Your task to perform on an android device: turn vacation reply on in the gmail app Image 0: 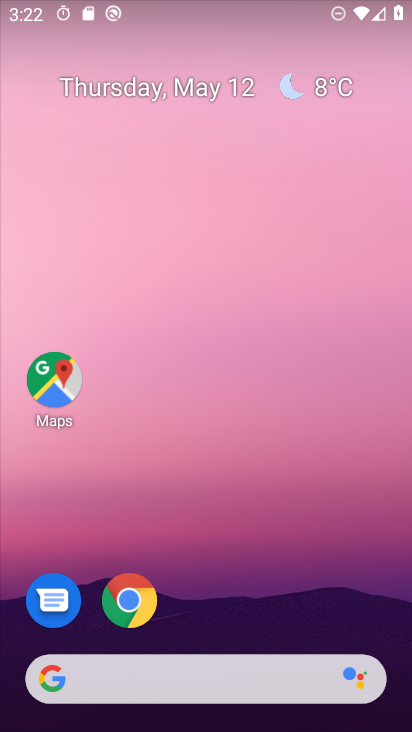
Step 0: drag from (189, 725) to (186, 151)
Your task to perform on an android device: turn vacation reply on in the gmail app Image 1: 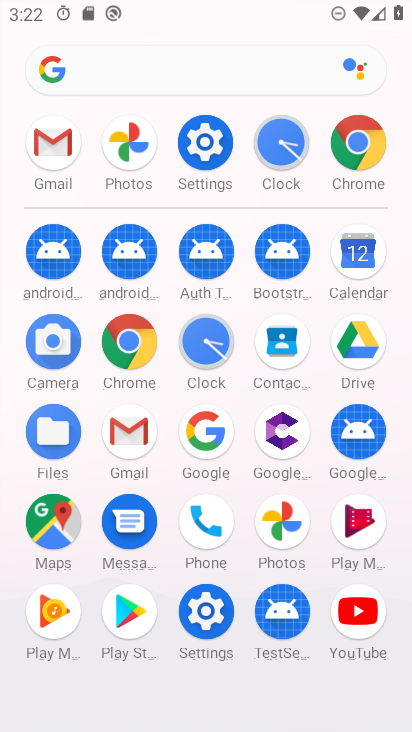
Step 1: click (131, 431)
Your task to perform on an android device: turn vacation reply on in the gmail app Image 2: 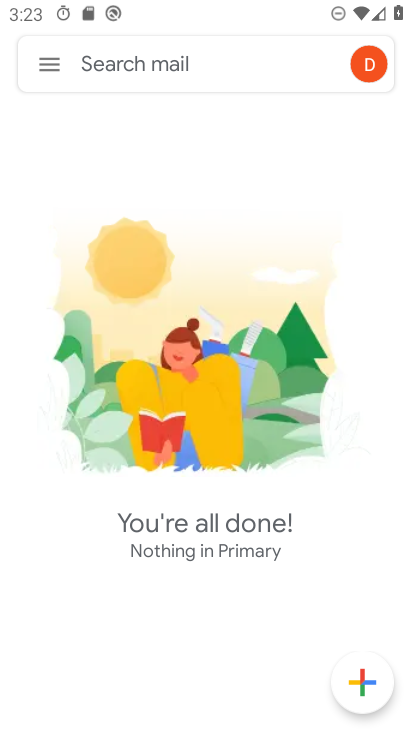
Step 2: click (52, 63)
Your task to perform on an android device: turn vacation reply on in the gmail app Image 3: 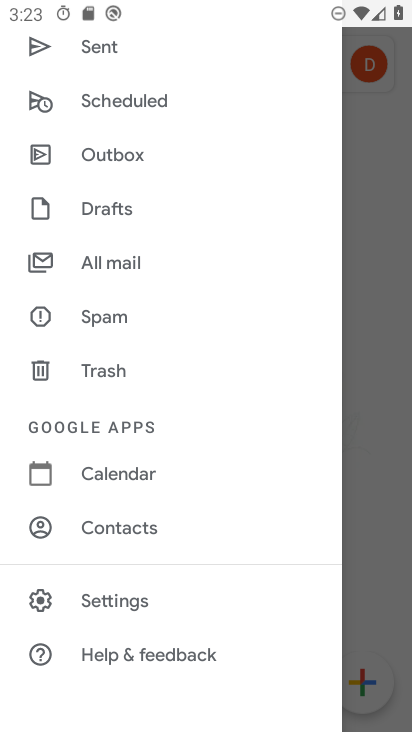
Step 3: drag from (114, 635) to (123, 242)
Your task to perform on an android device: turn vacation reply on in the gmail app Image 4: 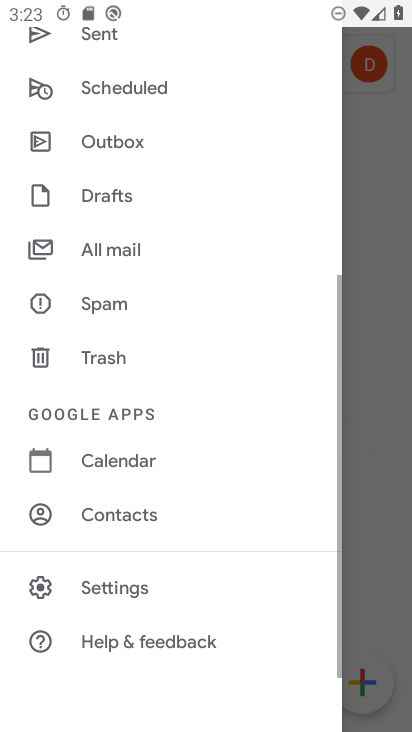
Step 4: click (122, 586)
Your task to perform on an android device: turn vacation reply on in the gmail app Image 5: 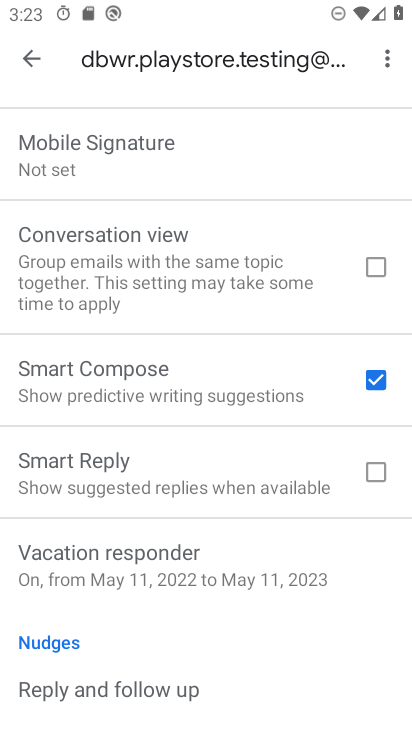
Step 5: click (113, 571)
Your task to perform on an android device: turn vacation reply on in the gmail app Image 6: 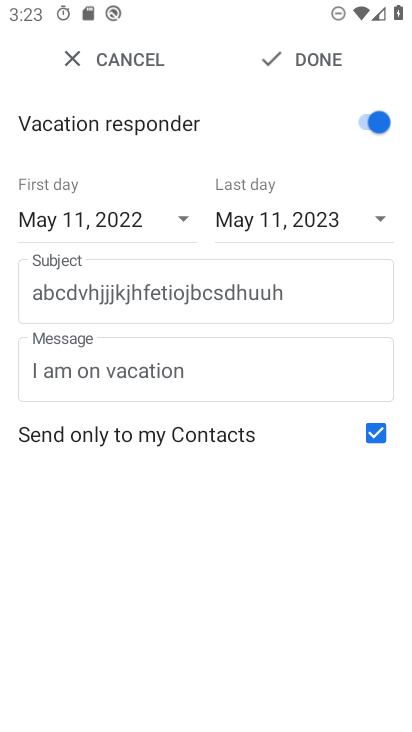
Step 6: task complete